Your task to perform on an android device: Open Chrome and go to settings Image 0: 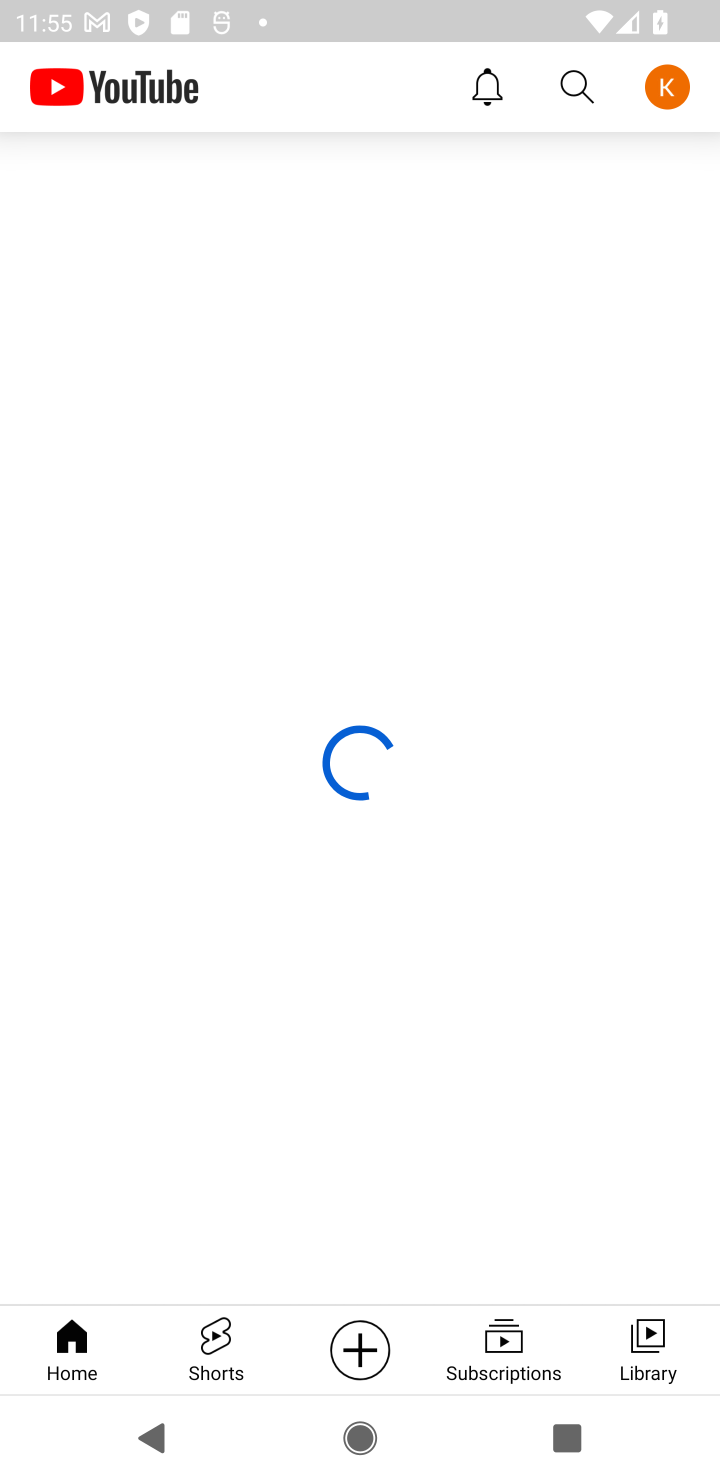
Step 0: press home button
Your task to perform on an android device: Open Chrome and go to settings Image 1: 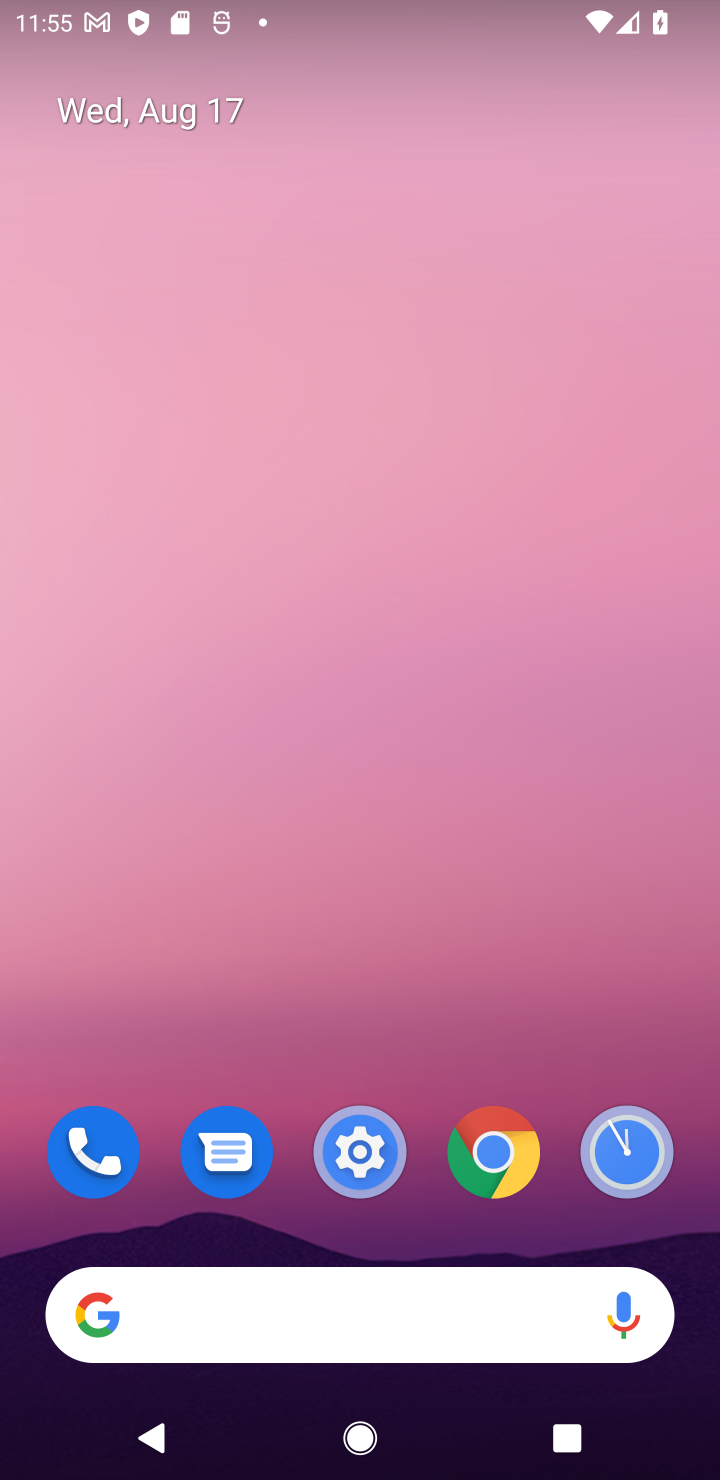
Step 1: drag from (572, 1224) to (352, 88)
Your task to perform on an android device: Open Chrome and go to settings Image 2: 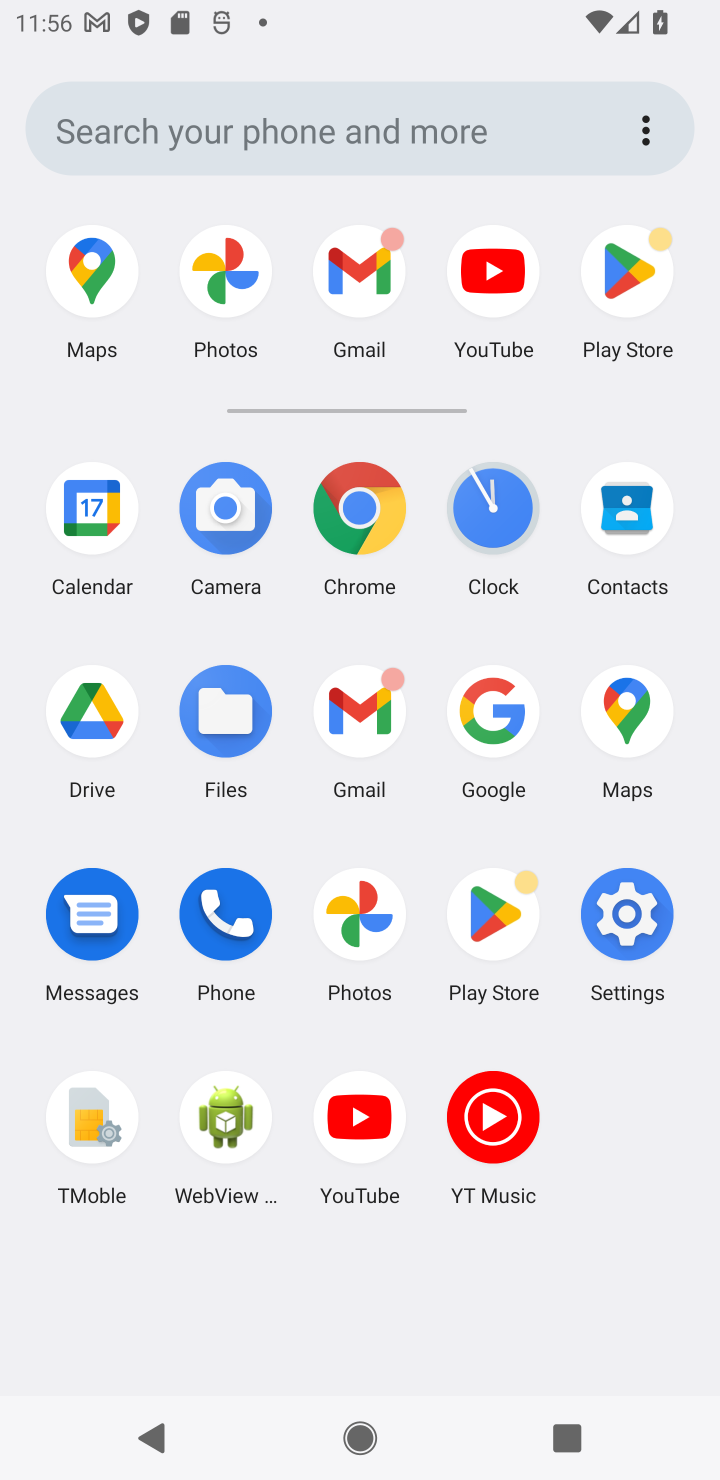
Step 2: click (358, 536)
Your task to perform on an android device: Open Chrome and go to settings Image 3: 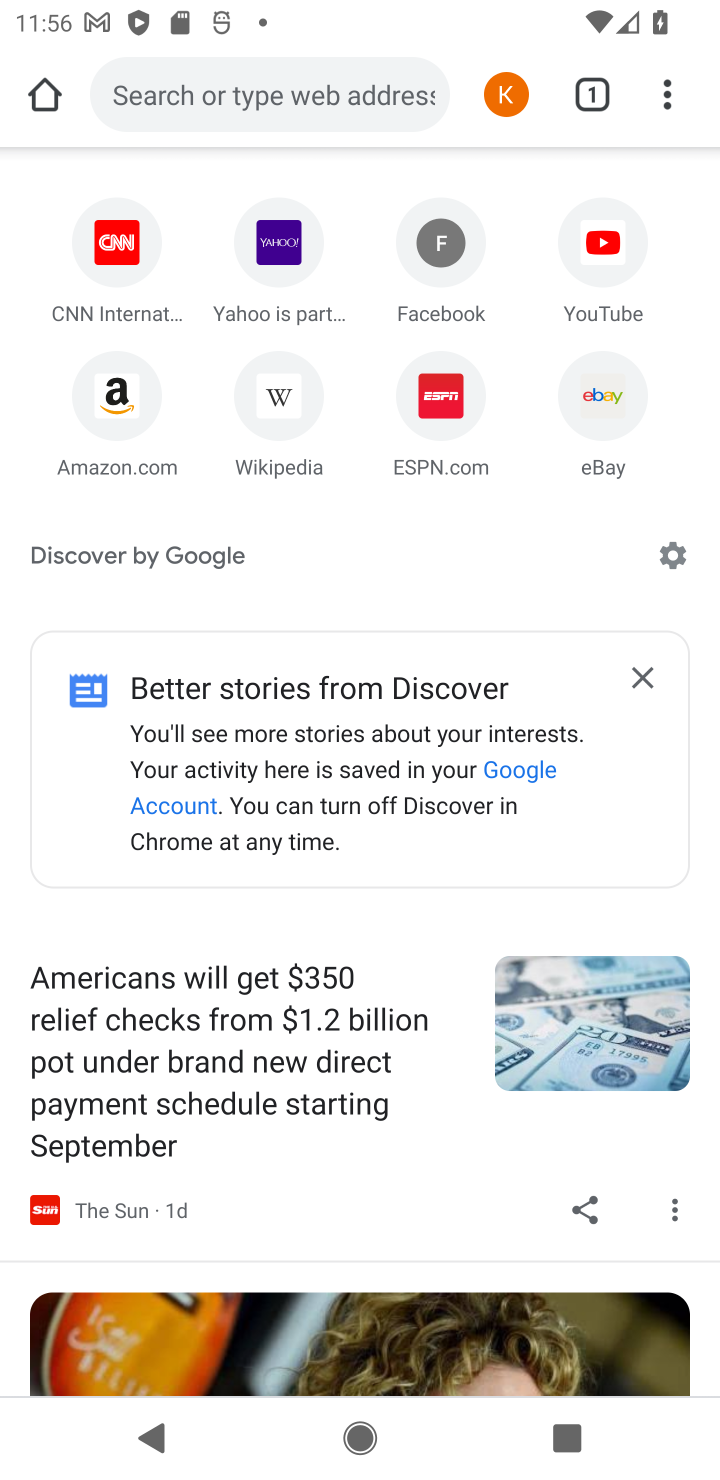
Step 3: click (675, 95)
Your task to perform on an android device: Open Chrome and go to settings Image 4: 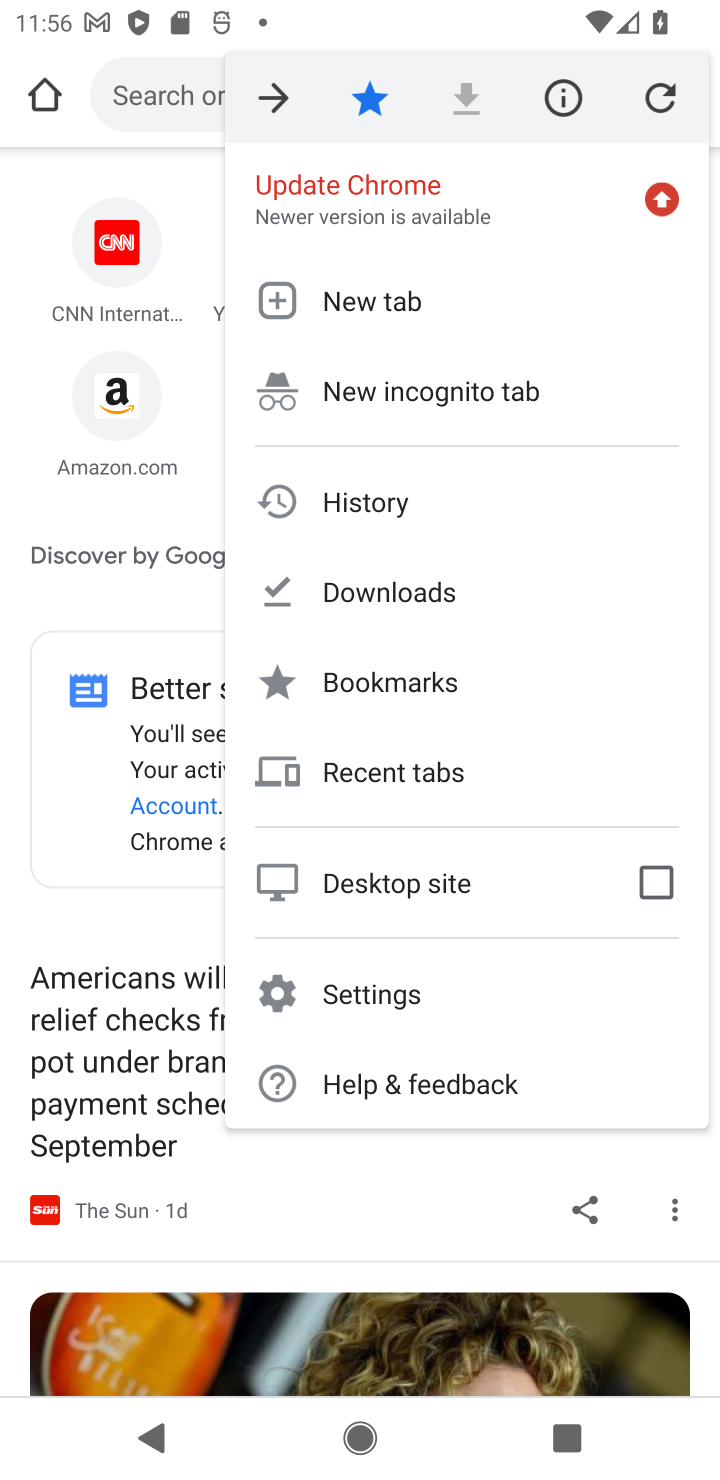
Step 4: click (375, 1001)
Your task to perform on an android device: Open Chrome and go to settings Image 5: 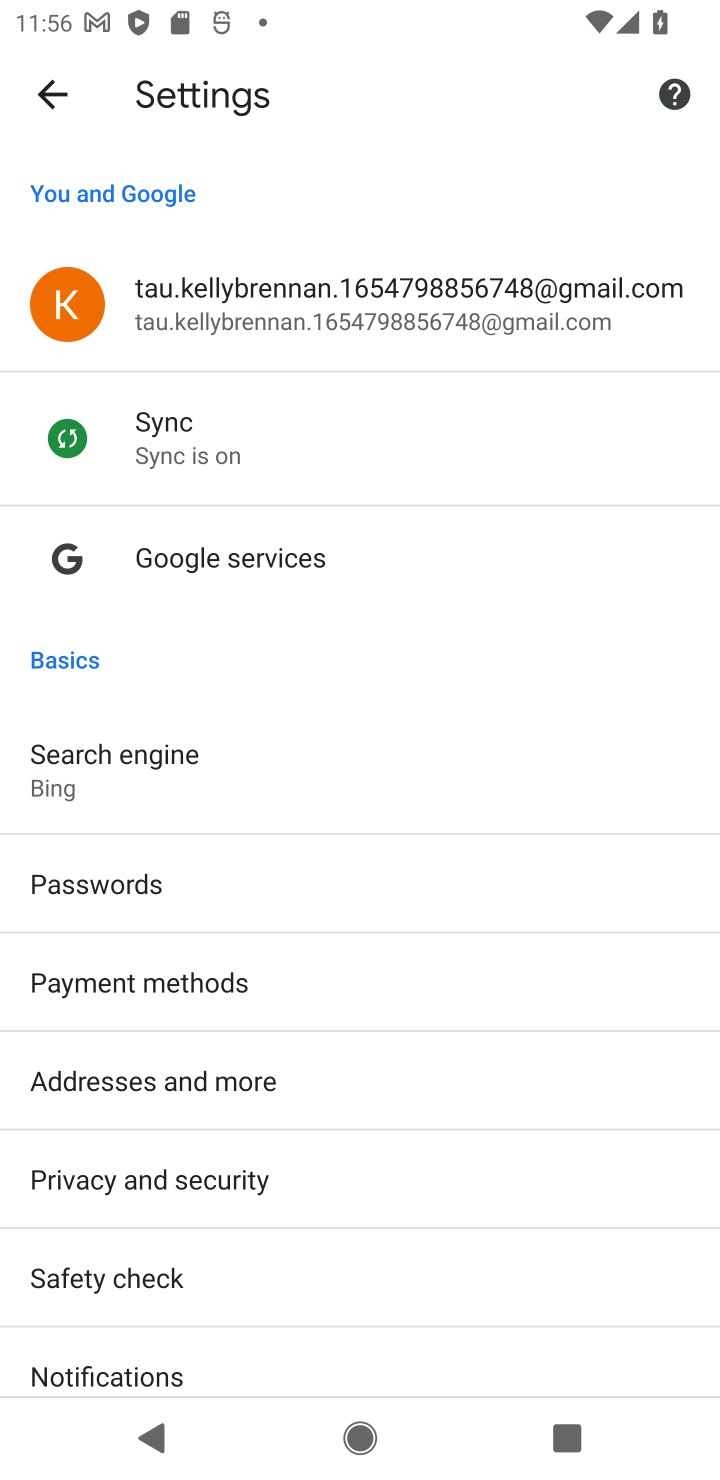
Step 5: task complete